Your task to perform on an android device: Open Youtube and go to the subscriptions tab Image 0: 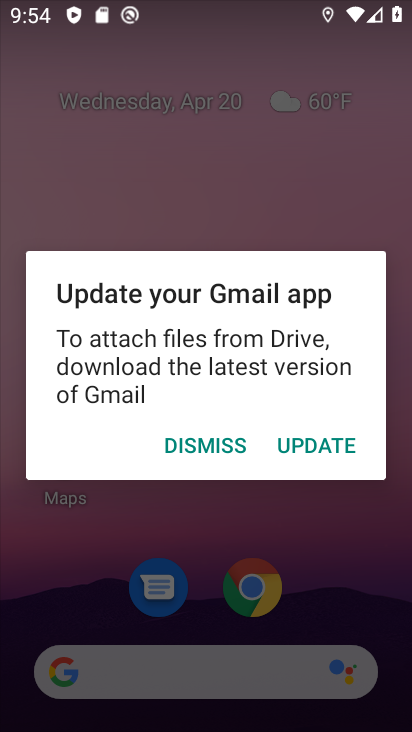
Step 0: press home button
Your task to perform on an android device: Open Youtube and go to the subscriptions tab Image 1: 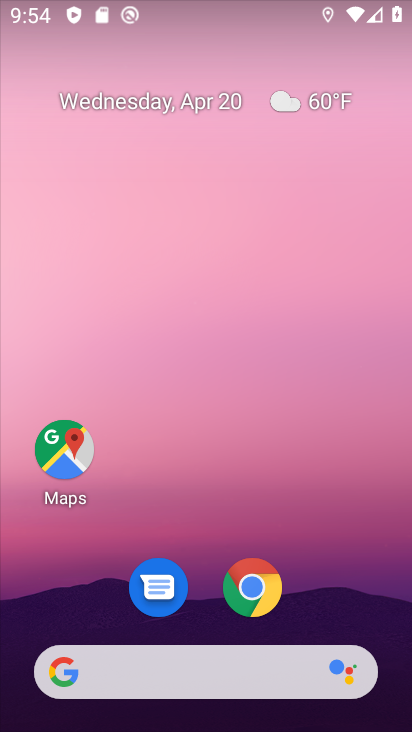
Step 1: drag from (346, 601) to (287, 59)
Your task to perform on an android device: Open Youtube and go to the subscriptions tab Image 2: 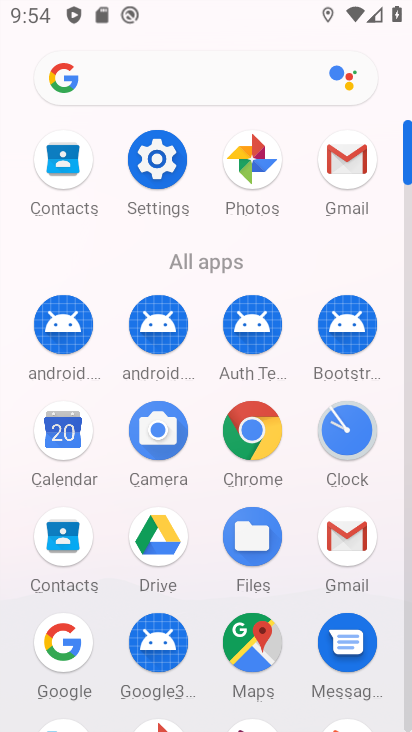
Step 2: drag from (311, 570) to (301, 182)
Your task to perform on an android device: Open Youtube and go to the subscriptions tab Image 3: 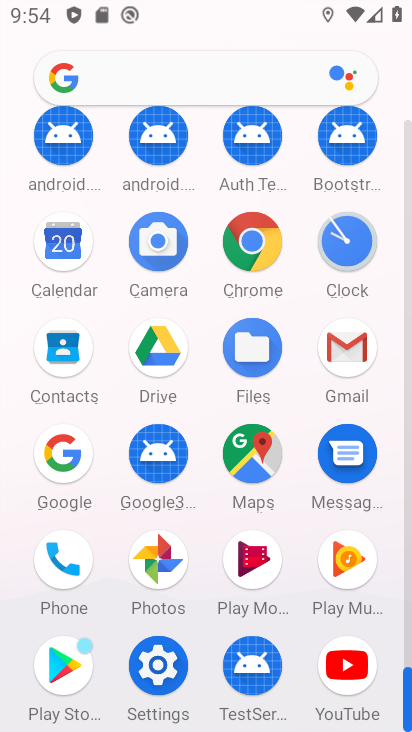
Step 3: click (342, 674)
Your task to perform on an android device: Open Youtube and go to the subscriptions tab Image 4: 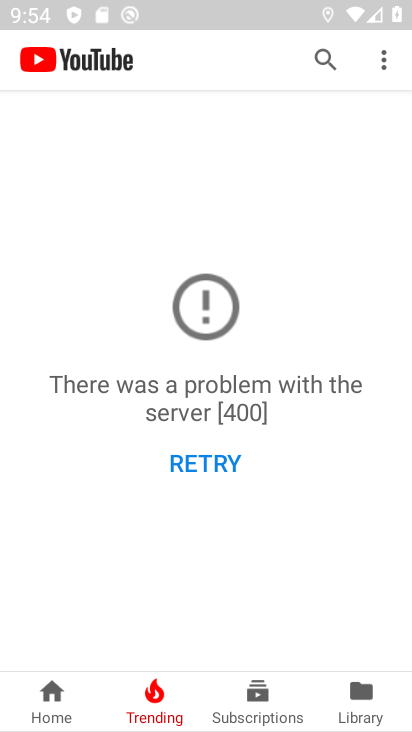
Step 4: click (260, 709)
Your task to perform on an android device: Open Youtube and go to the subscriptions tab Image 5: 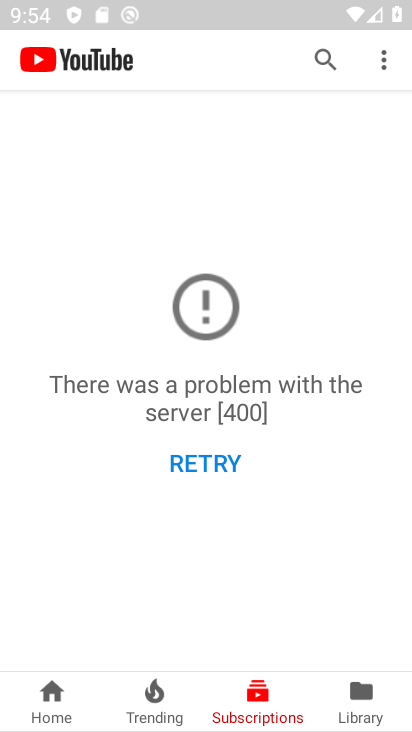
Step 5: task complete